Your task to perform on an android device: toggle notification dots Image 0: 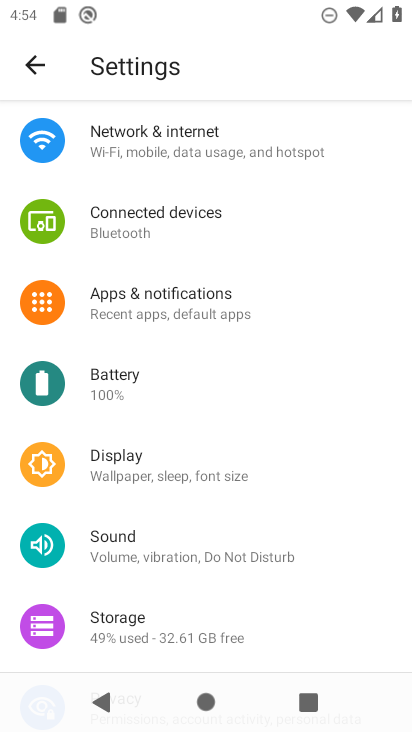
Step 0: click (92, 310)
Your task to perform on an android device: toggle notification dots Image 1: 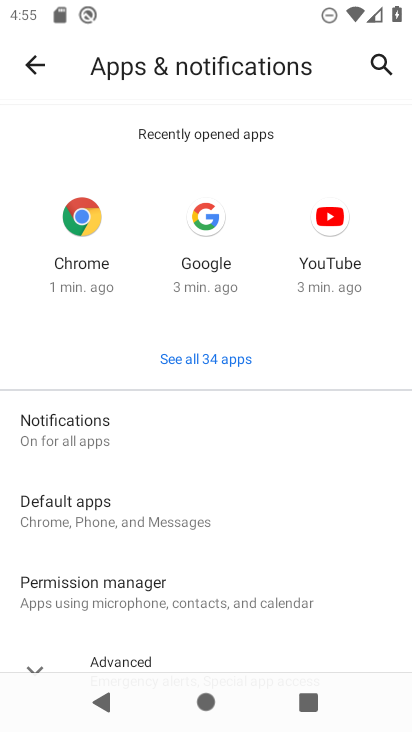
Step 1: drag from (205, 240) to (200, 57)
Your task to perform on an android device: toggle notification dots Image 2: 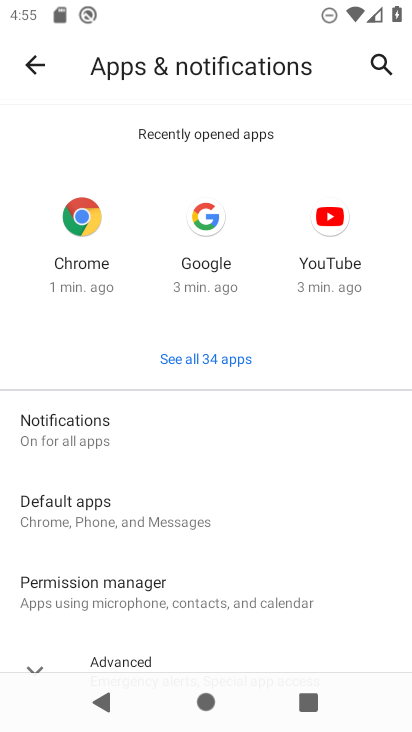
Step 2: drag from (141, 544) to (175, 226)
Your task to perform on an android device: toggle notification dots Image 3: 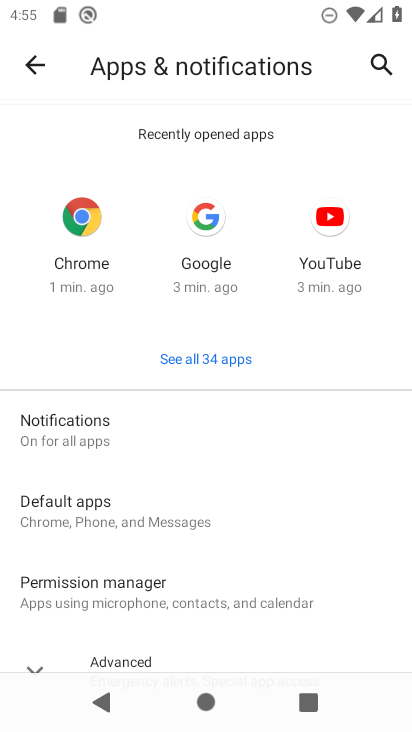
Step 3: drag from (160, 604) to (173, 145)
Your task to perform on an android device: toggle notification dots Image 4: 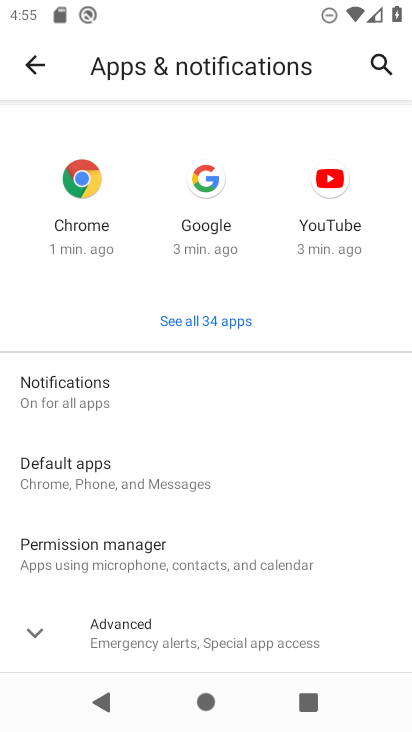
Step 4: click (205, 619)
Your task to perform on an android device: toggle notification dots Image 5: 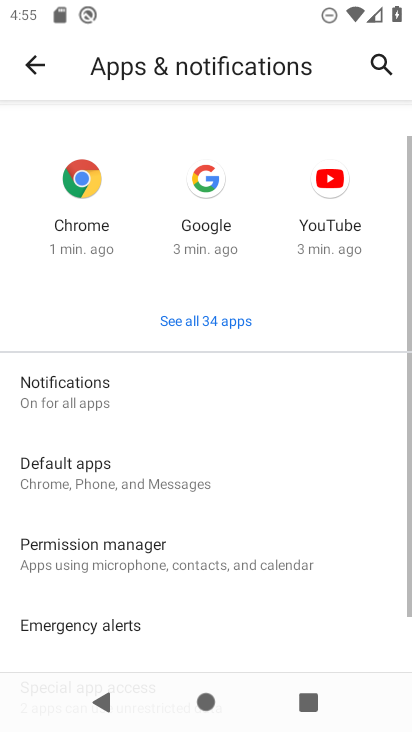
Step 5: drag from (205, 619) to (272, 15)
Your task to perform on an android device: toggle notification dots Image 6: 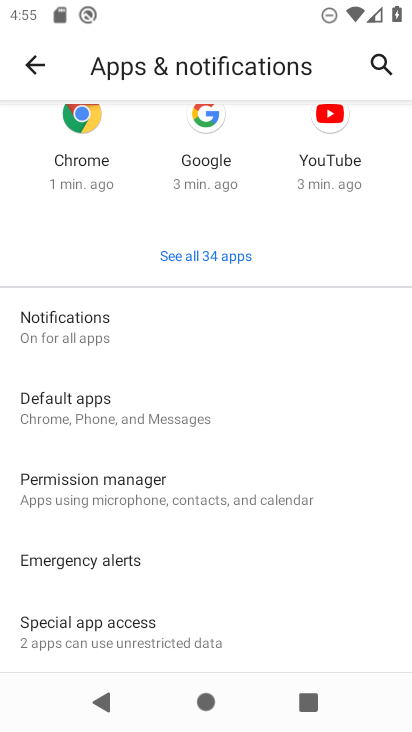
Step 6: click (181, 320)
Your task to perform on an android device: toggle notification dots Image 7: 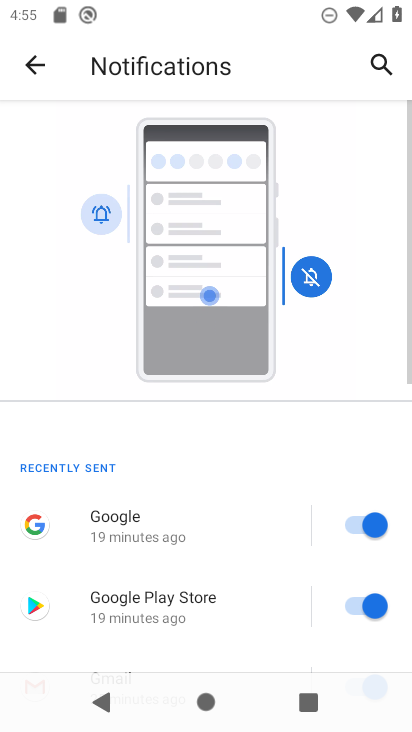
Step 7: drag from (208, 467) to (247, 73)
Your task to perform on an android device: toggle notification dots Image 8: 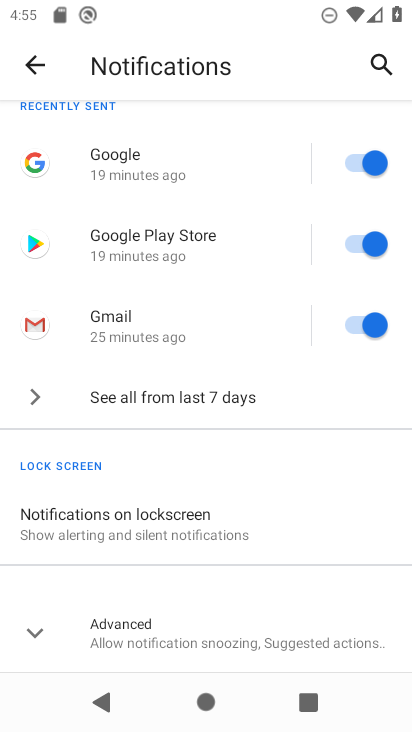
Step 8: click (140, 622)
Your task to perform on an android device: toggle notification dots Image 9: 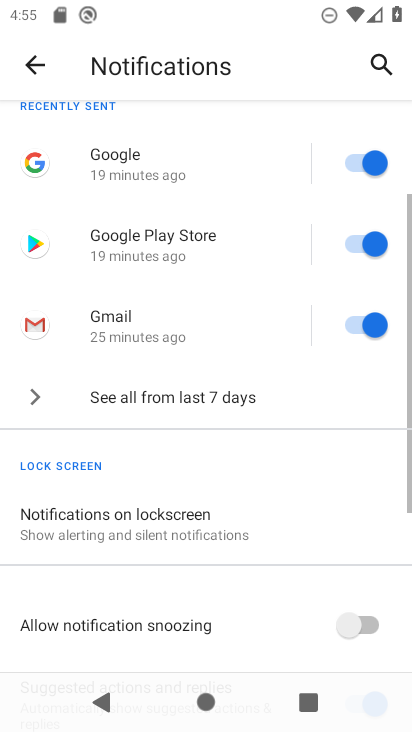
Step 9: drag from (140, 622) to (275, 91)
Your task to perform on an android device: toggle notification dots Image 10: 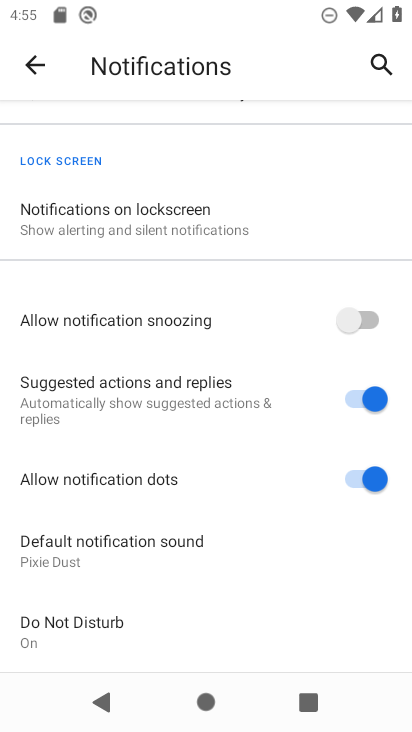
Step 10: click (365, 490)
Your task to perform on an android device: toggle notification dots Image 11: 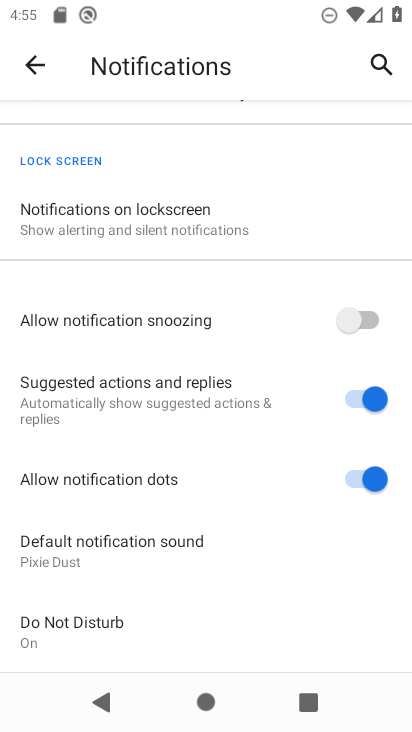
Step 11: click (365, 490)
Your task to perform on an android device: toggle notification dots Image 12: 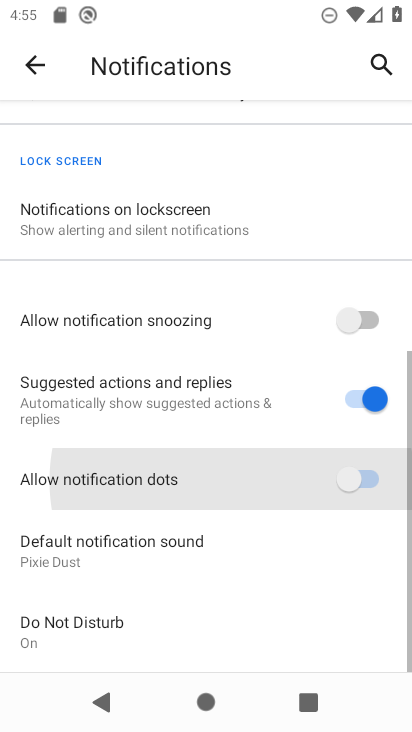
Step 12: click (365, 490)
Your task to perform on an android device: toggle notification dots Image 13: 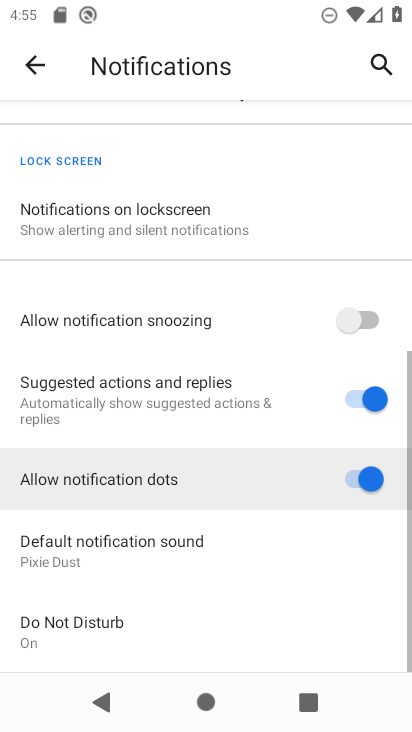
Step 13: click (365, 490)
Your task to perform on an android device: toggle notification dots Image 14: 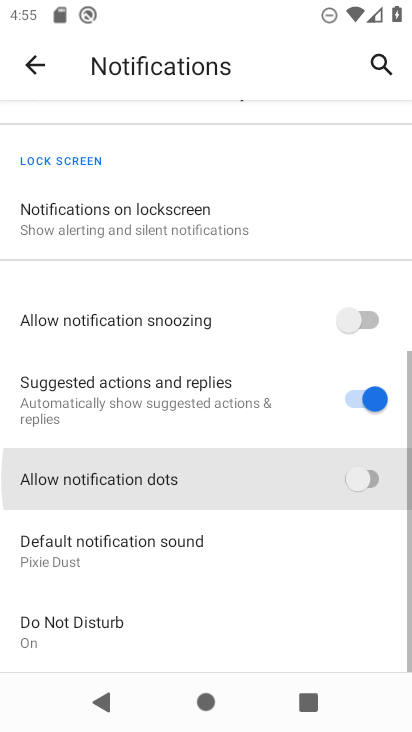
Step 14: click (365, 490)
Your task to perform on an android device: toggle notification dots Image 15: 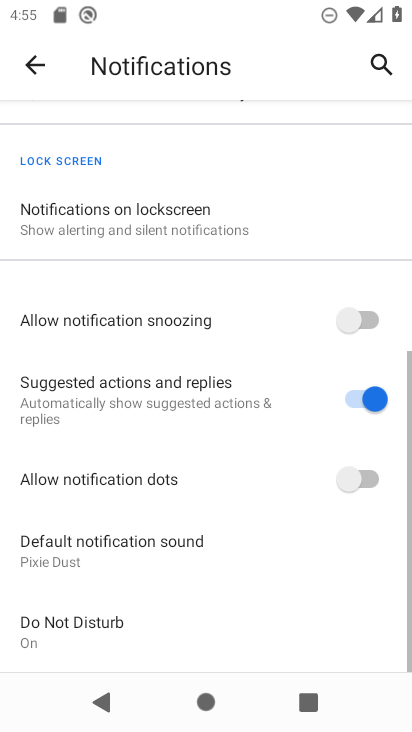
Step 15: task complete